Your task to perform on an android device: turn on wifi Image 0: 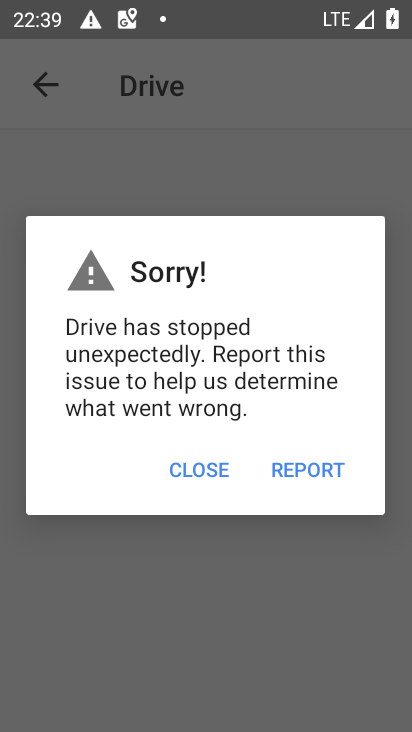
Step 0: press home button
Your task to perform on an android device: turn on wifi Image 1: 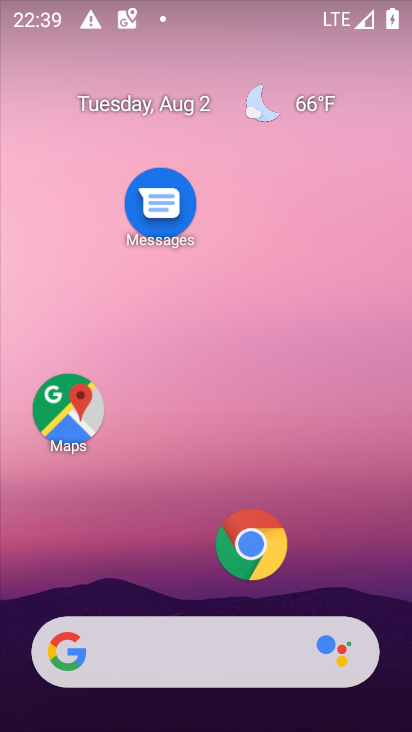
Step 1: drag from (185, 579) to (192, 209)
Your task to perform on an android device: turn on wifi Image 2: 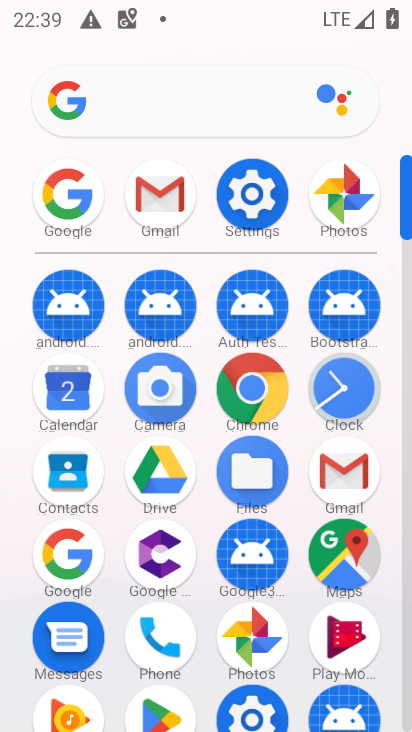
Step 2: click (253, 187)
Your task to perform on an android device: turn on wifi Image 3: 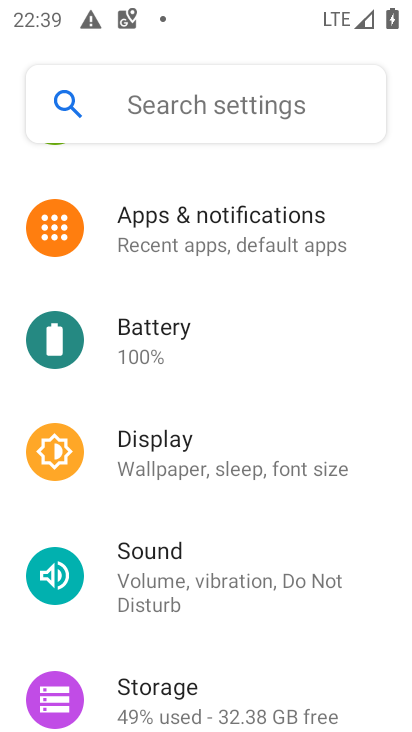
Step 3: drag from (225, 263) to (239, 514)
Your task to perform on an android device: turn on wifi Image 4: 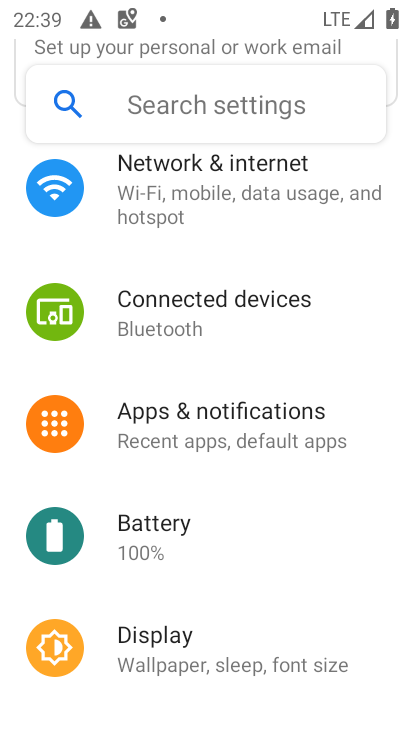
Step 4: click (180, 225)
Your task to perform on an android device: turn on wifi Image 5: 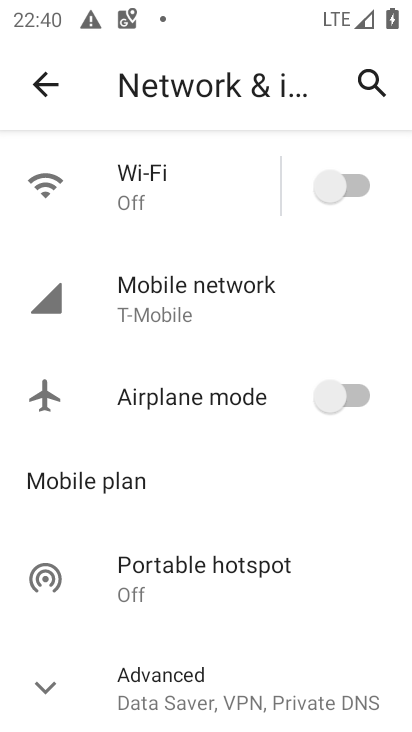
Step 5: click (354, 184)
Your task to perform on an android device: turn on wifi Image 6: 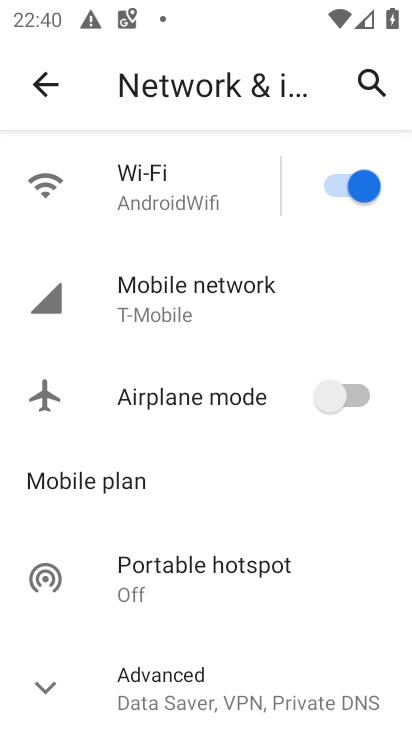
Step 6: task complete